Your task to perform on an android device: Search for Italian restaurants on Maps Image 0: 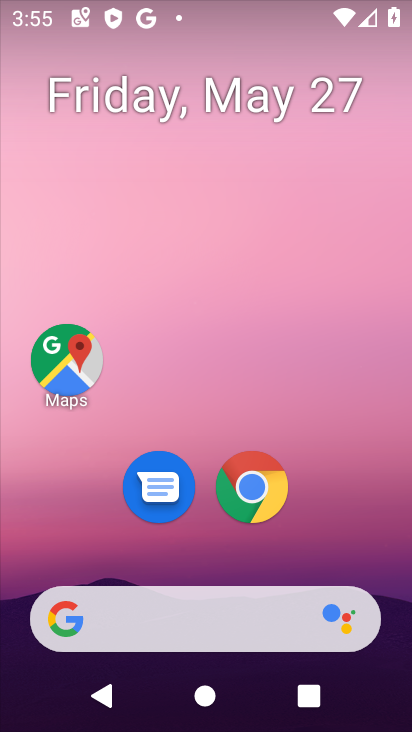
Step 0: click (41, 359)
Your task to perform on an android device: Search for Italian restaurants on Maps Image 1: 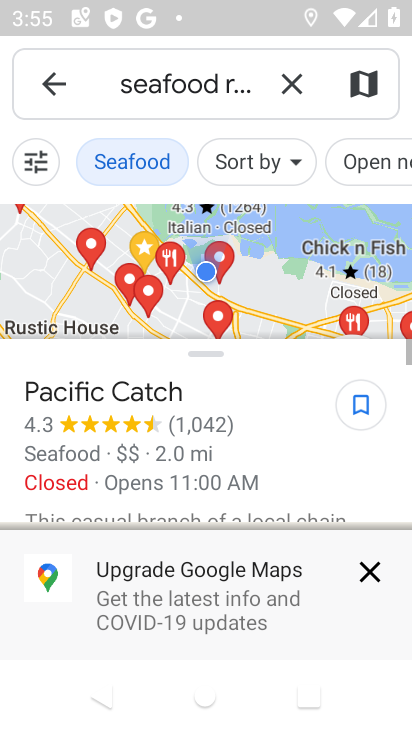
Step 1: click (229, 78)
Your task to perform on an android device: Search for Italian restaurants on Maps Image 2: 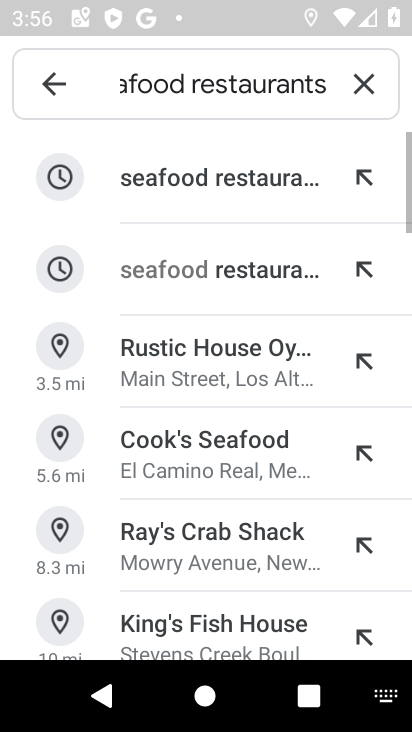
Step 2: click (347, 79)
Your task to perform on an android device: Search for Italian restaurants on Maps Image 3: 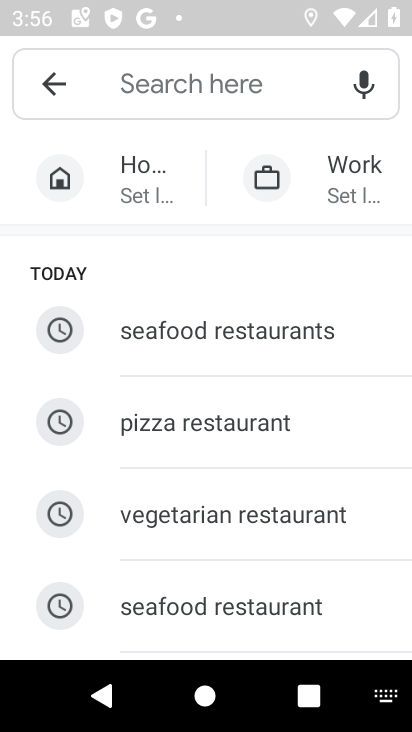
Step 3: type "Italian restaurants"
Your task to perform on an android device: Search for Italian restaurants on Maps Image 4: 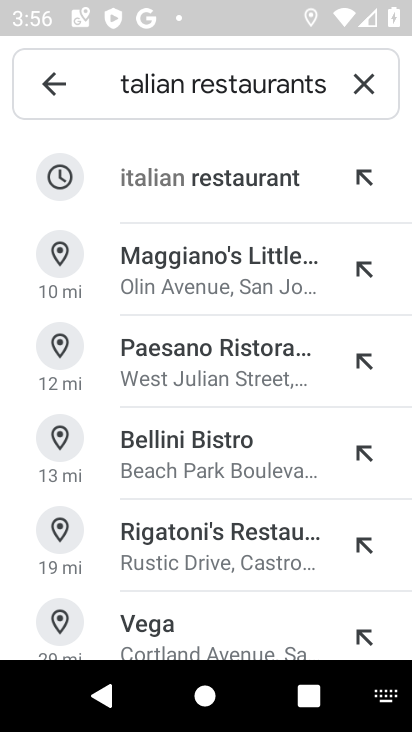
Step 4: press enter
Your task to perform on an android device: Search for Italian restaurants on Maps Image 5: 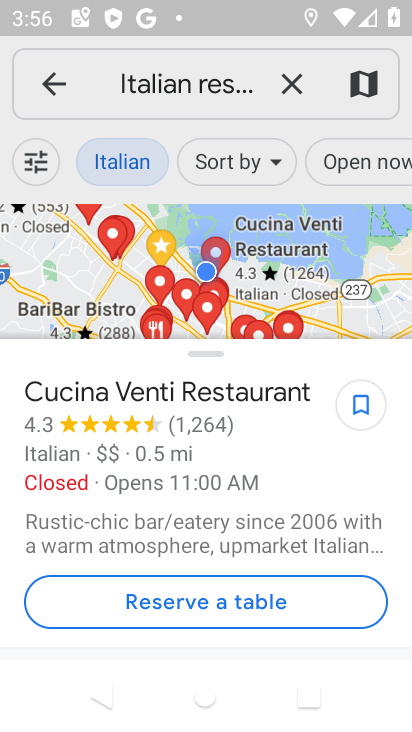
Step 5: task complete